Your task to perform on an android device: change the clock style Image 0: 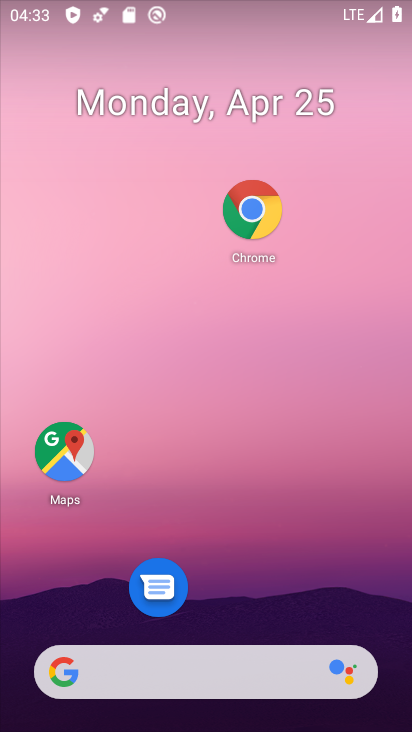
Step 0: drag from (362, 602) to (351, 138)
Your task to perform on an android device: change the clock style Image 1: 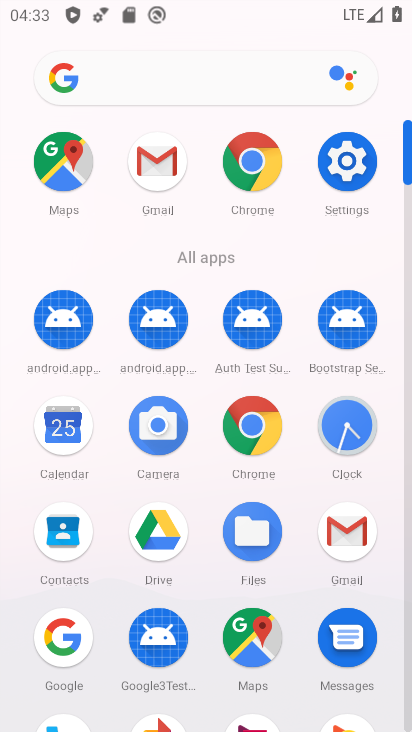
Step 1: click (341, 429)
Your task to perform on an android device: change the clock style Image 2: 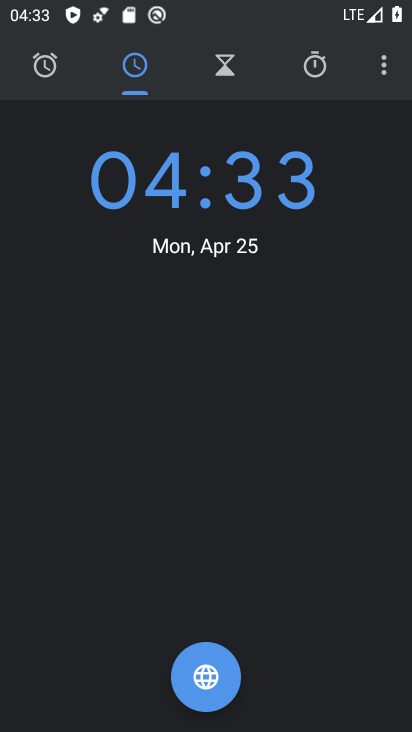
Step 2: click (391, 71)
Your task to perform on an android device: change the clock style Image 3: 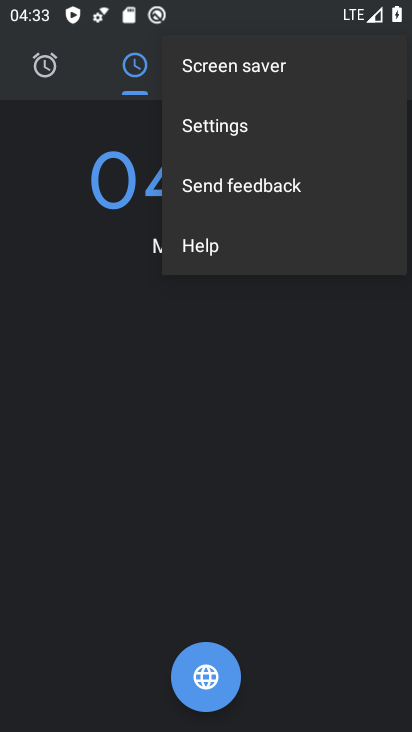
Step 3: click (313, 128)
Your task to perform on an android device: change the clock style Image 4: 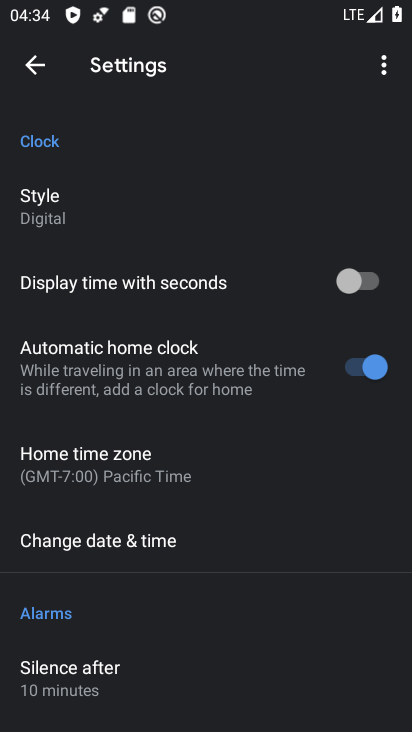
Step 4: click (248, 199)
Your task to perform on an android device: change the clock style Image 5: 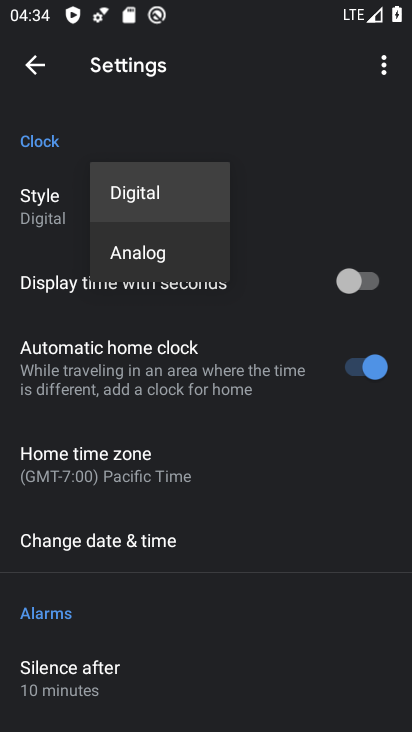
Step 5: click (192, 251)
Your task to perform on an android device: change the clock style Image 6: 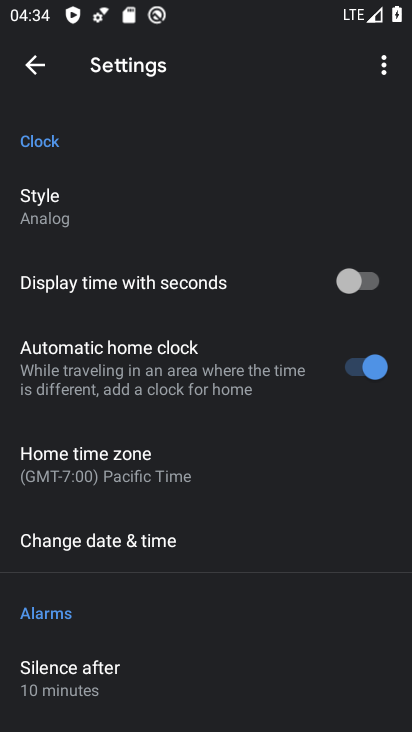
Step 6: task complete